Your task to perform on an android device: turn on wifi Image 0: 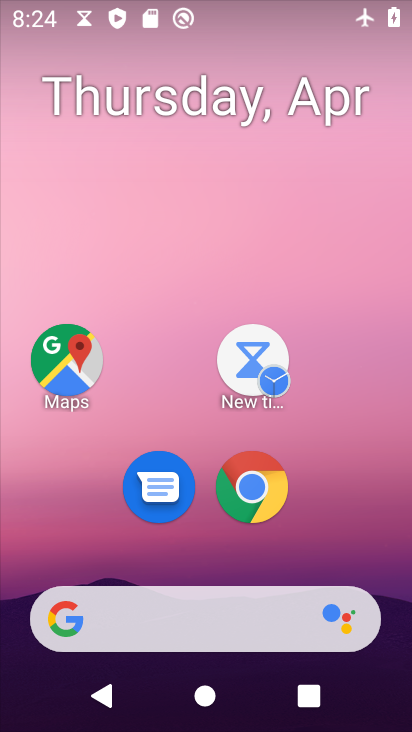
Step 0: drag from (332, 470) to (322, 50)
Your task to perform on an android device: turn on wifi Image 1: 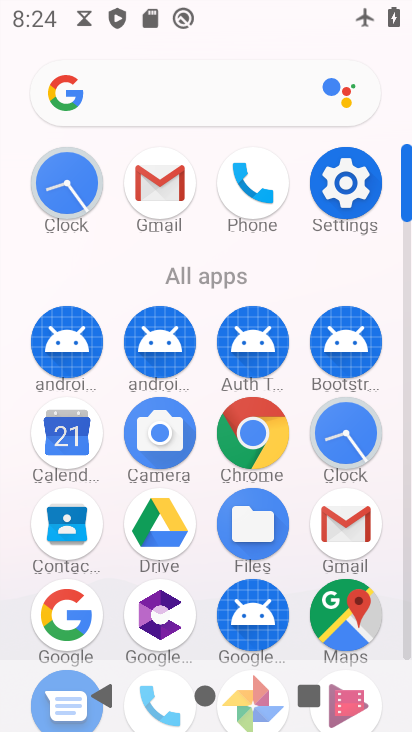
Step 1: click (339, 173)
Your task to perform on an android device: turn on wifi Image 2: 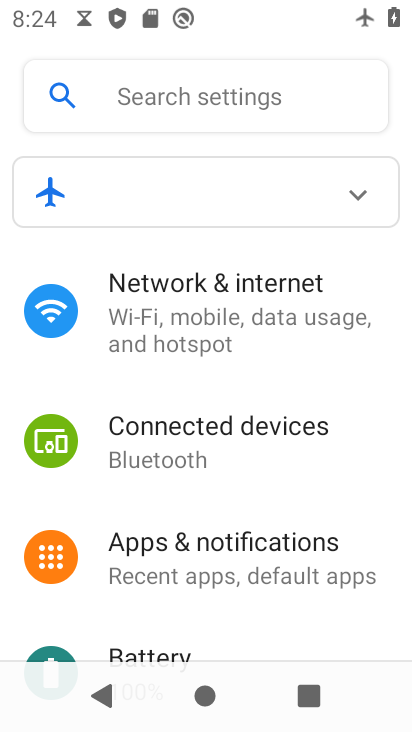
Step 2: click (203, 310)
Your task to perform on an android device: turn on wifi Image 3: 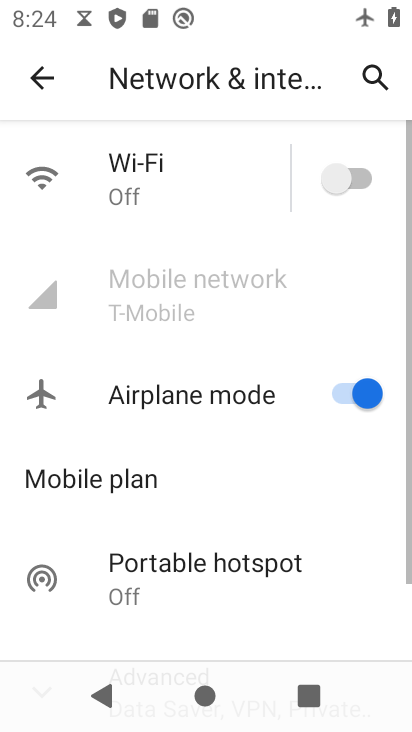
Step 3: click (344, 172)
Your task to perform on an android device: turn on wifi Image 4: 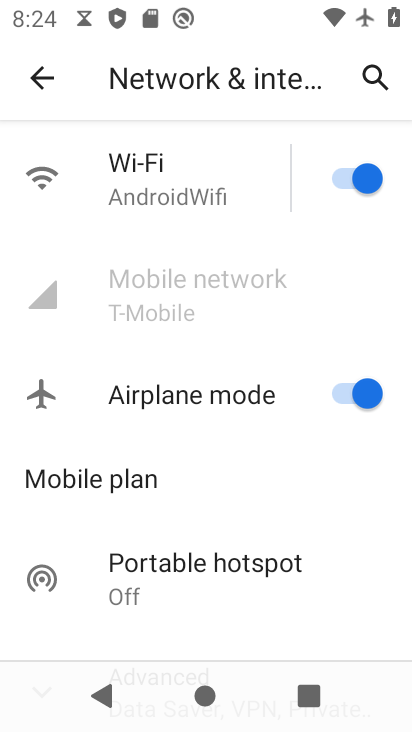
Step 4: task complete